Your task to perform on an android device: Open the map Image 0: 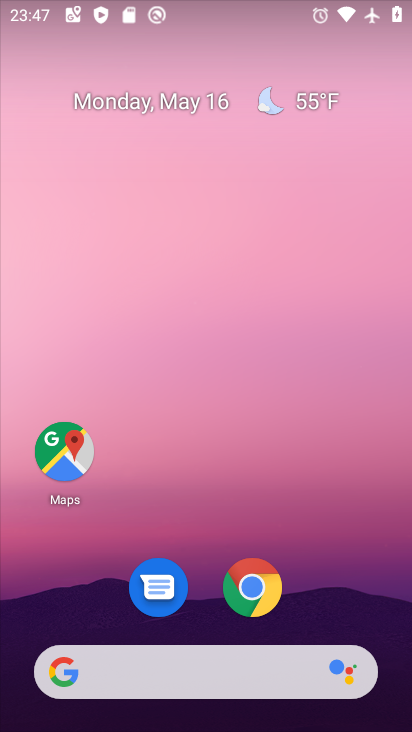
Step 0: drag from (300, 556) to (232, 25)
Your task to perform on an android device: Open the map Image 1: 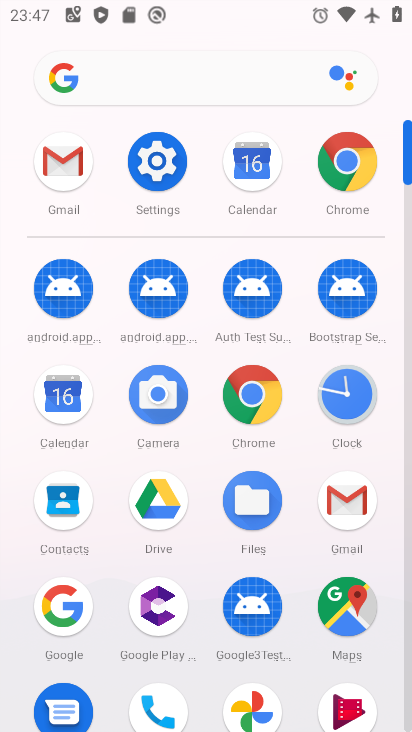
Step 1: drag from (13, 526) to (19, 242)
Your task to perform on an android device: Open the map Image 2: 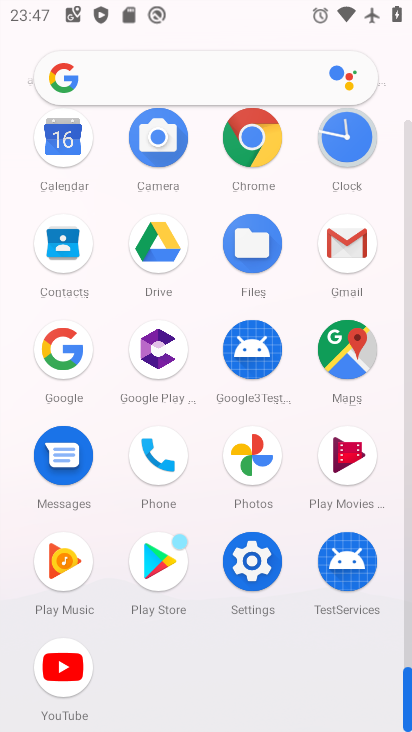
Step 2: click (344, 347)
Your task to perform on an android device: Open the map Image 3: 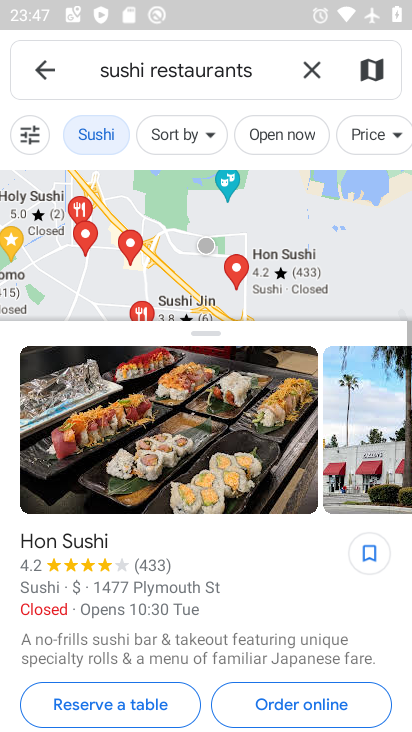
Step 3: click (318, 68)
Your task to perform on an android device: Open the map Image 4: 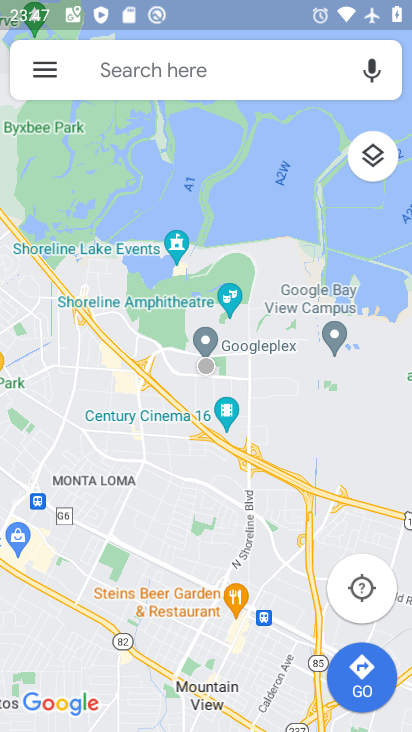
Step 4: task complete